Your task to perform on an android device: open sync settings in chrome Image 0: 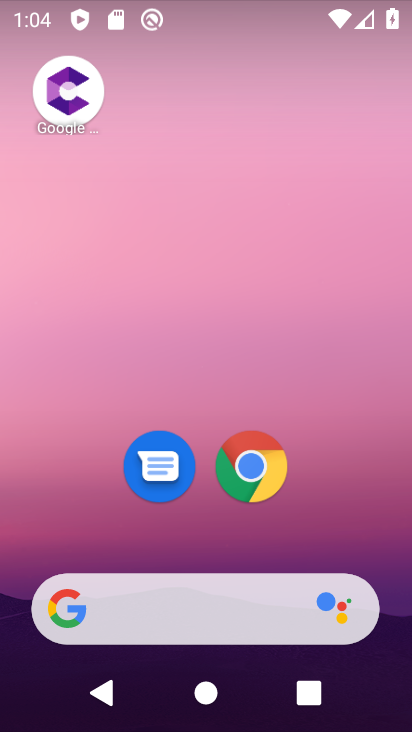
Step 0: drag from (332, 422) to (281, 48)
Your task to perform on an android device: open sync settings in chrome Image 1: 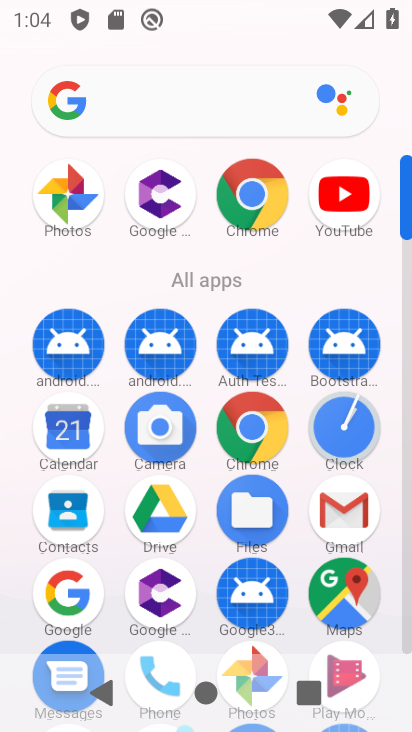
Step 1: drag from (10, 596) to (19, 281)
Your task to perform on an android device: open sync settings in chrome Image 2: 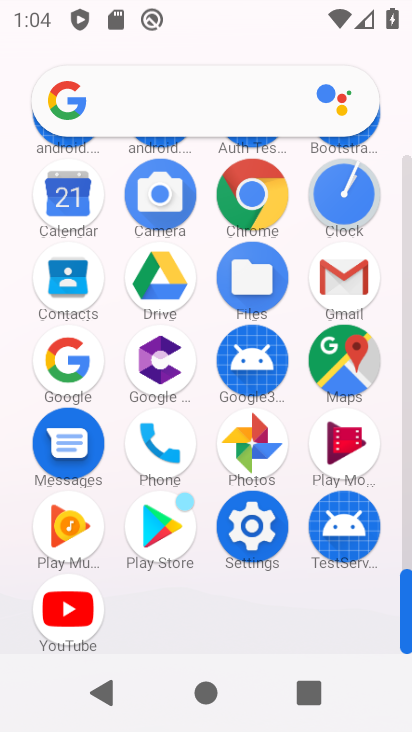
Step 2: click (252, 186)
Your task to perform on an android device: open sync settings in chrome Image 3: 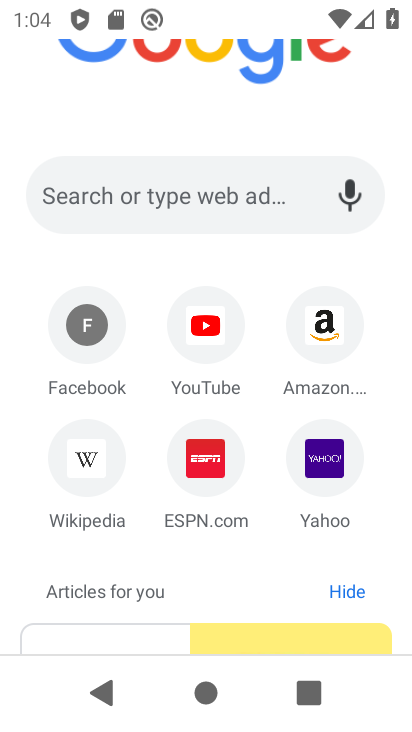
Step 3: drag from (9, 503) to (25, 228)
Your task to perform on an android device: open sync settings in chrome Image 4: 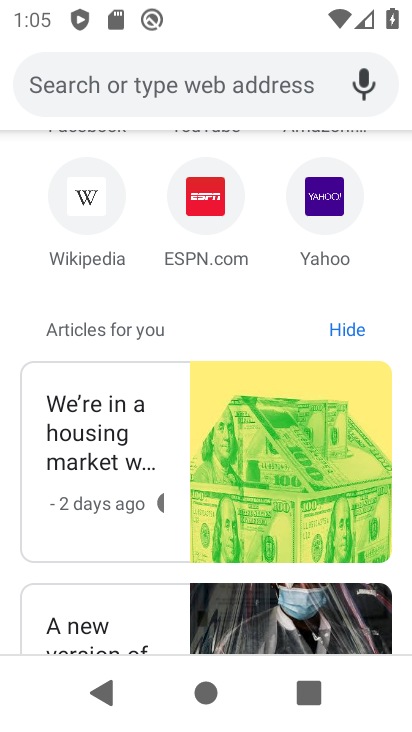
Step 4: drag from (85, 465) to (96, 201)
Your task to perform on an android device: open sync settings in chrome Image 5: 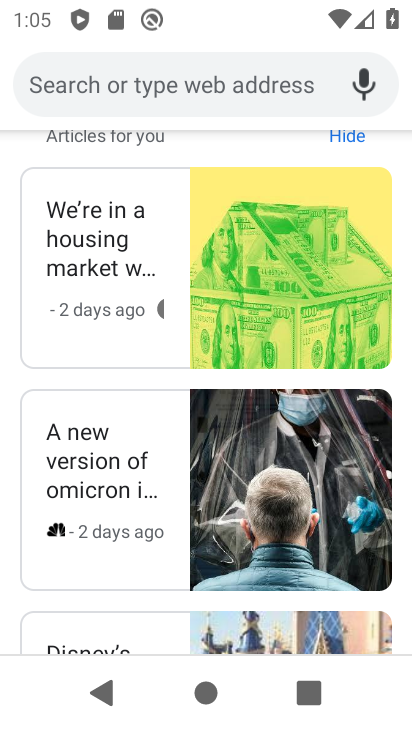
Step 5: drag from (127, 170) to (95, 514)
Your task to perform on an android device: open sync settings in chrome Image 6: 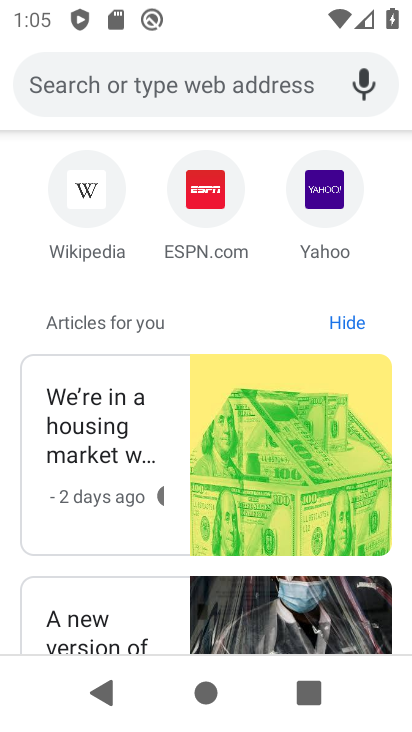
Step 6: drag from (126, 188) to (94, 512)
Your task to perform on an android device: open sync settings in chrome Image 7: 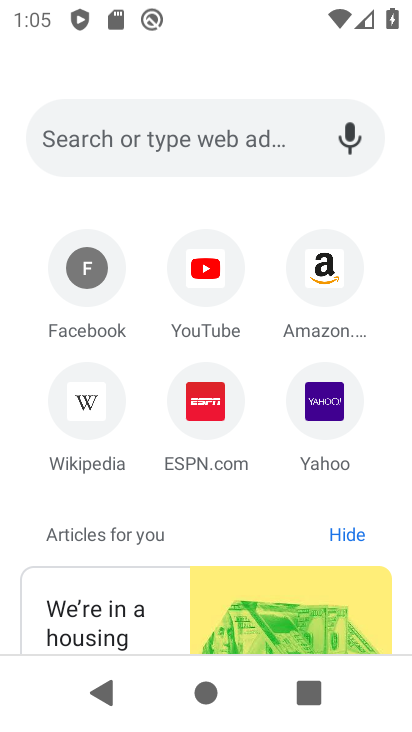
Step 7: drag from (210, 127) to (164, 485)
Your task to perform on an android device: open sync settings in chrome Image 8: 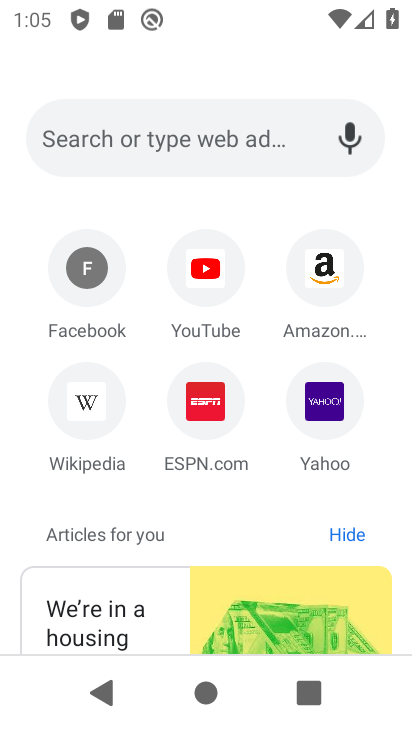
Step 8: drag from (124, 372) to (108, 511)
Your task to perform on an android device: open sync settings in chrome Image 9: 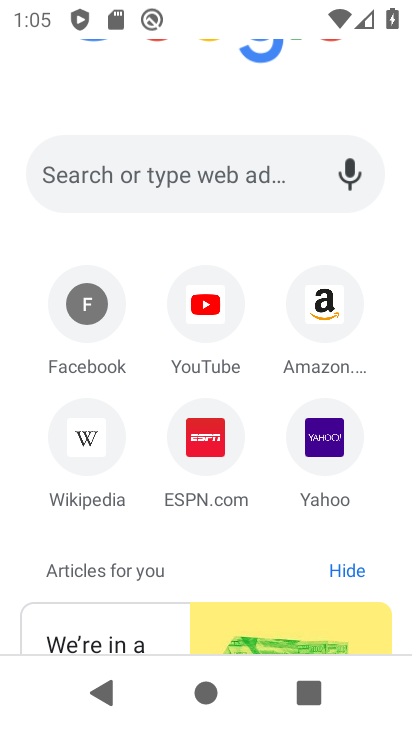
Step 9: drag from (219, 154) to (156, 471)
Your task to perform on an android device: open sync settings in chrome Image 10: 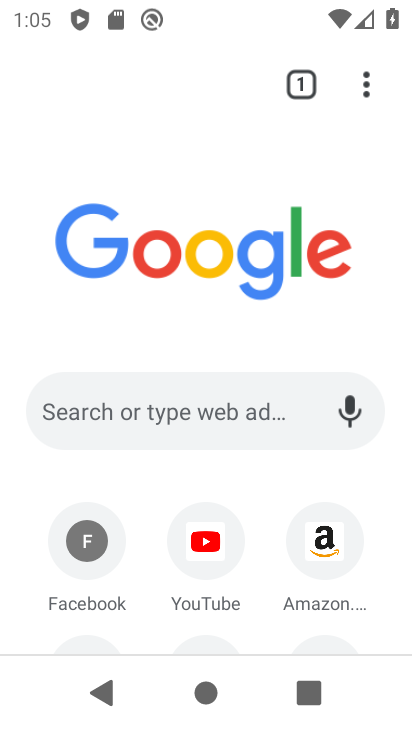
Step 10: drag from (368, 93) to (178, 509)
Your task to perform on an android device: open sync settings in chrome Image 11: 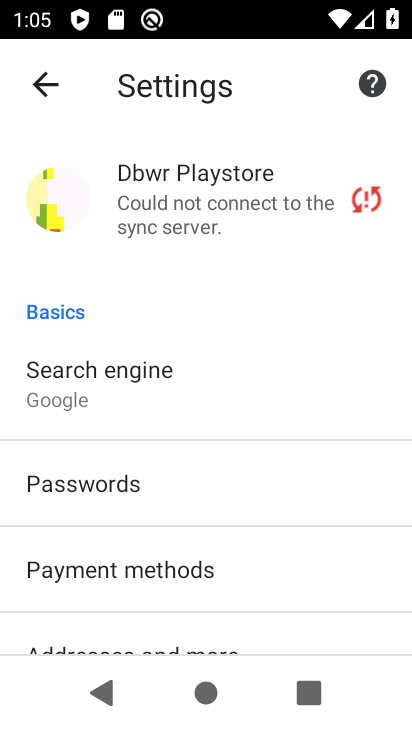
Step 11: drag from (196, 579) to (236, 245)
Your task to perform on an android device: open sync settings in chrome Image 12: 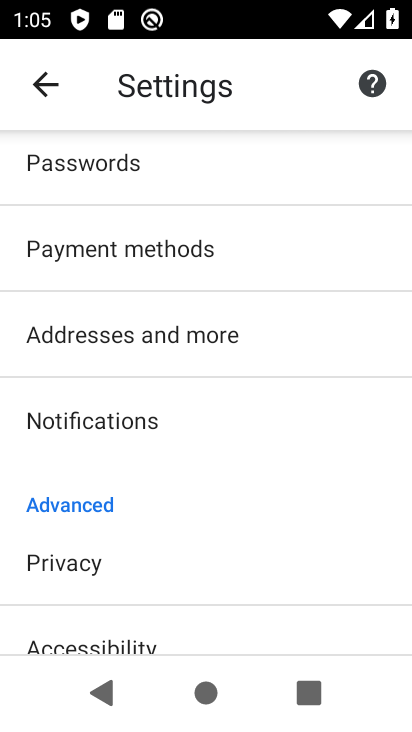
Step 12: drag from (216, 545) to (236, 225)
Your task to perform on an android device: open sync settings in chrome Image 13: 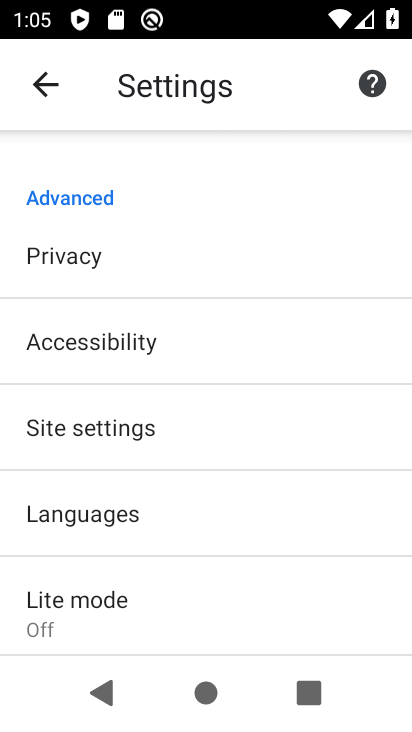
Step 13: drag from (142, 515) to (172, 242)
Your task to perform on an android device: open sync settings in chrome Image 14: 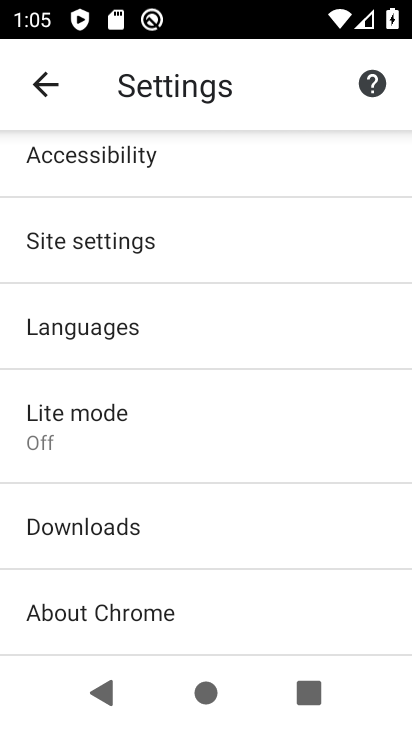
Step 14: drag from (243, 494) to (256, 194)
Your task to perform on an android device: open sync settings in chrome Image 15: 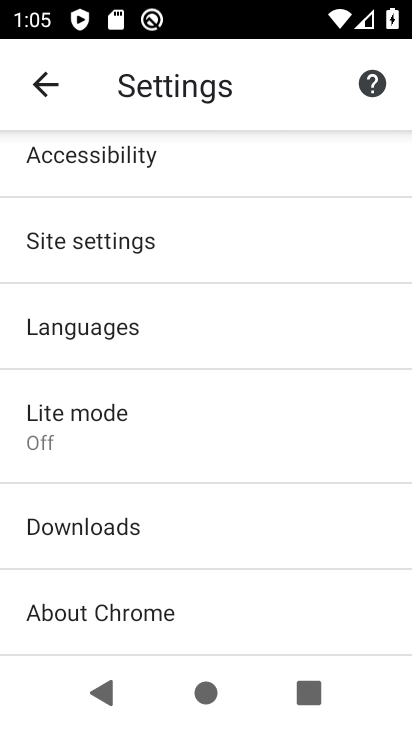
Step 15: drag from (247, 194) to (238, 573)
Your task to perform on an android device: open sync settings in chrome Image 16: 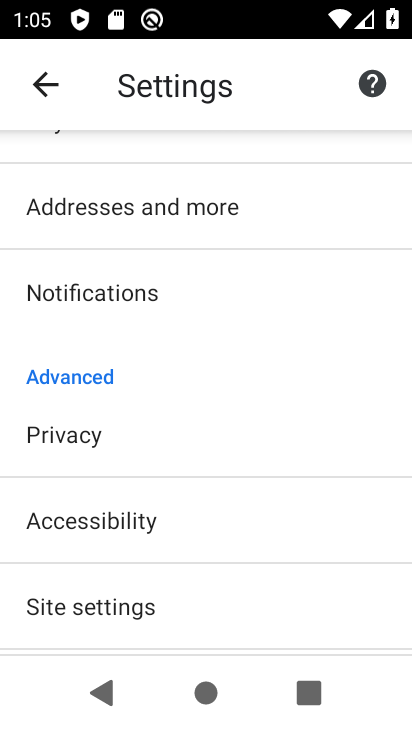
Step 16: drag from (244, 230) to (251, 546)
Your task to perform on an android device: open sync settings in chrome Image 17: 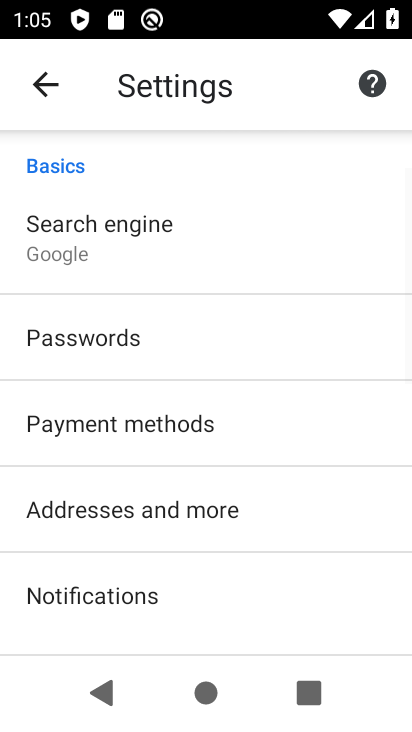
Step 17: drag from (251, 261) to (255, 514)
Your task to perform on an android device: open sync settings in chrome Image 18: 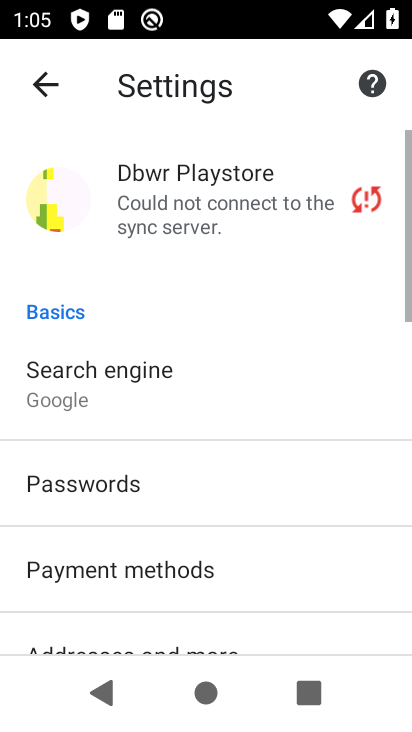
Step 18: click (216, 185)
Your task to perform on an android device: open sync settings in chrome Image 19: 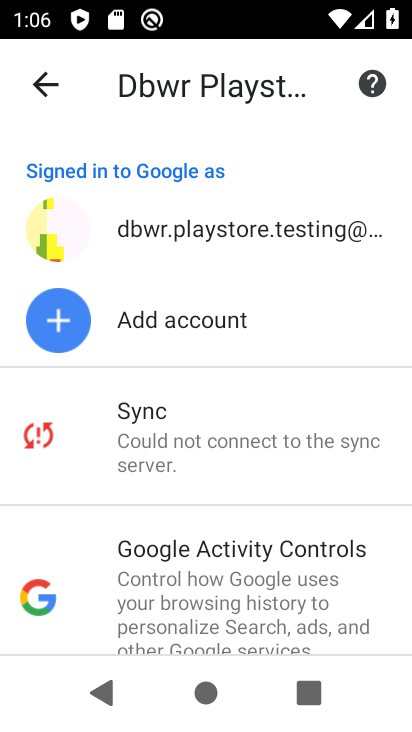
Step 19: click (217, 457)
Your task to perform on an android device: open sync settings in chrome Image 20: 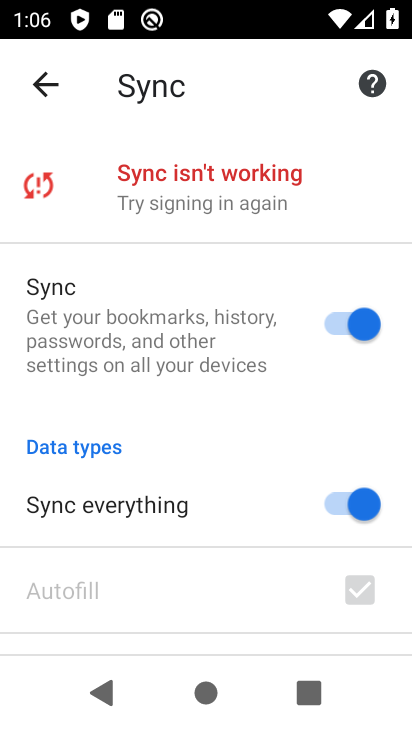
Step 20: task complete